Your task to perform on an android device: Open Amazon Image 0: 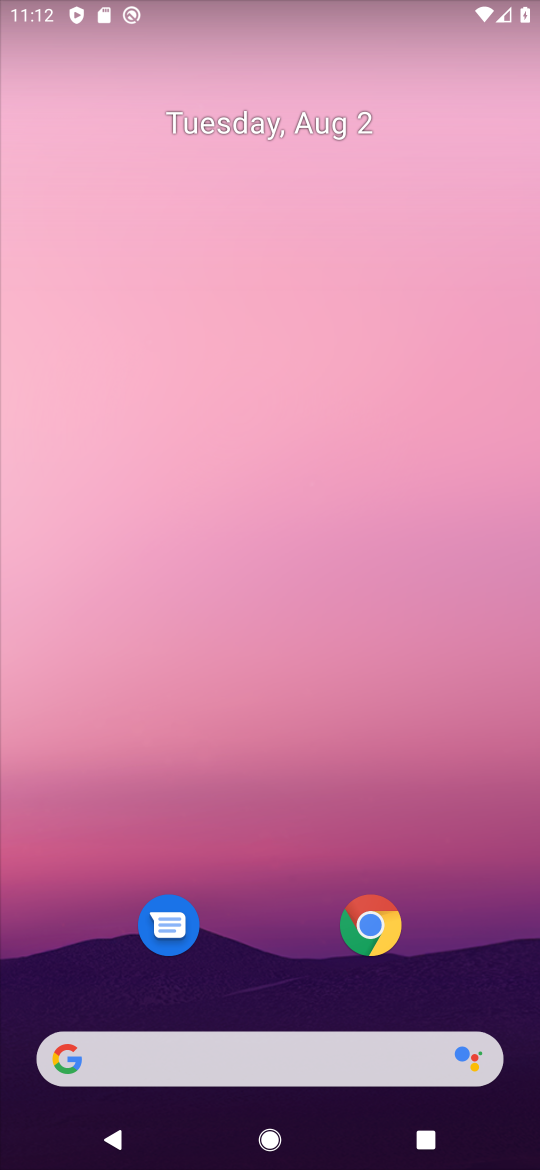
Step 0: press back button
Your task to perform on an android device: Open Amazon Image 1: 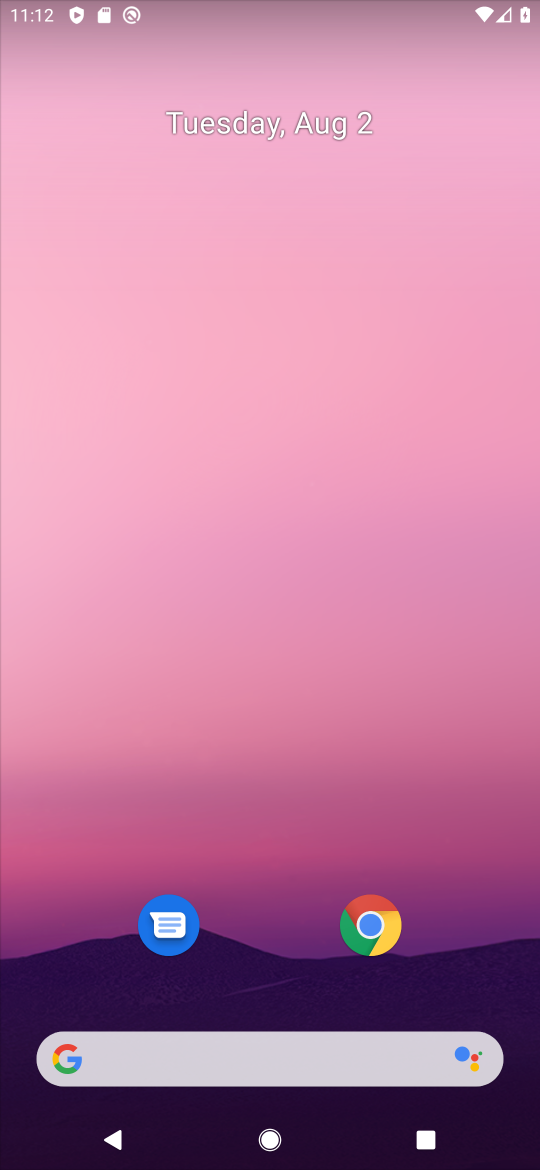
Step 1: click (382, 938)
Your task to perform on an android device: Open Amazon Image 2: 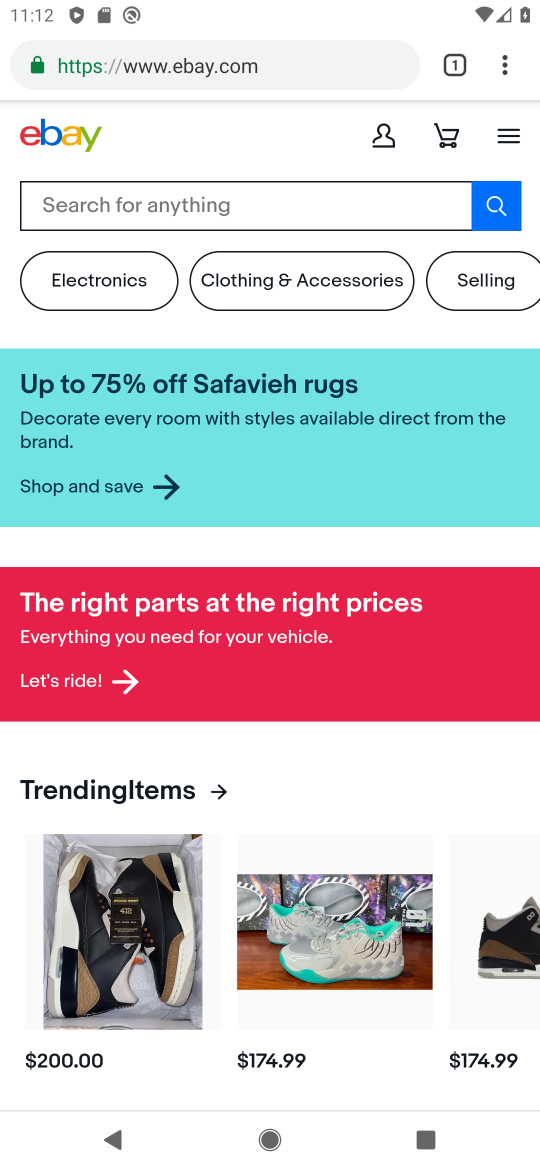
Step 2: click (472, 82)
Your task to perform on an android device: Open Amazon Image 3: 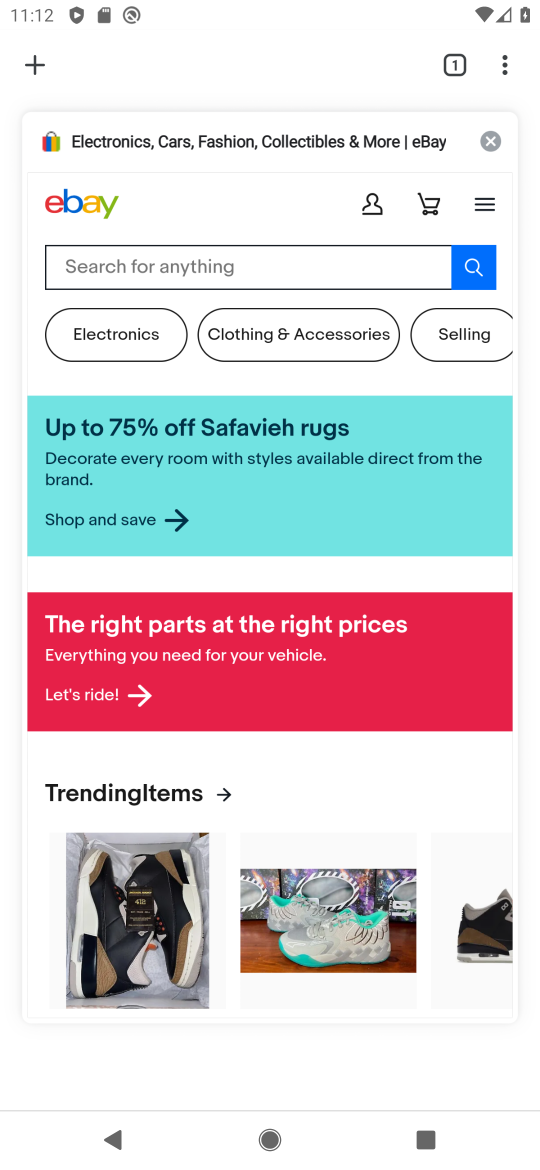
Step 3: click (29, 70)
Your task to perform on an android device: Open Amazon Image 4: 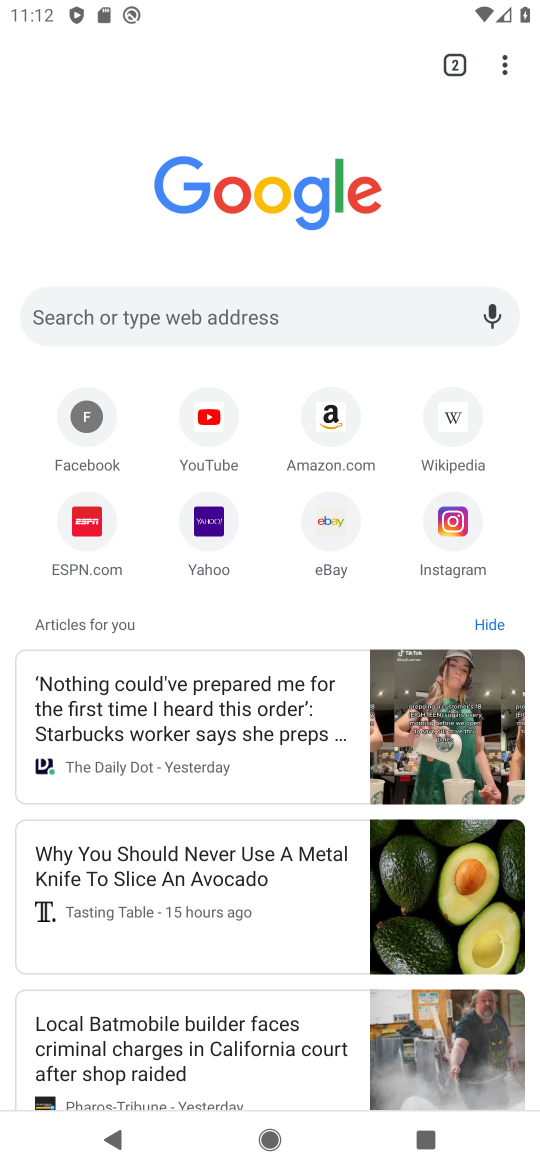
Step 4: click (329, 447)
Your task to perform on an android device: Open Amazon Image 5: 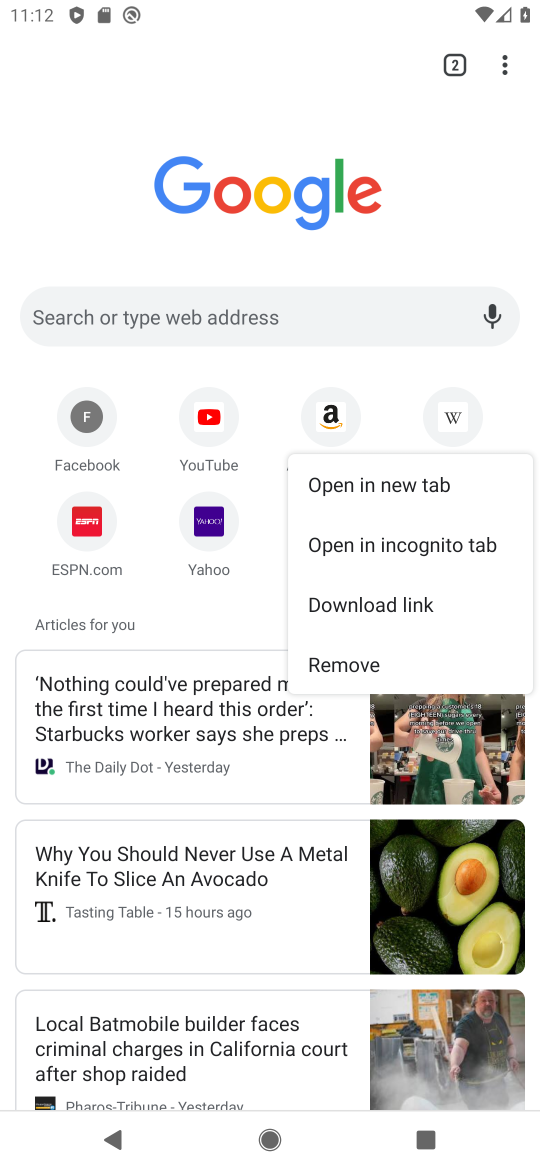
Step 5: click (328, 431)
Your task to perform on an android device: Open Amazon Image 6: 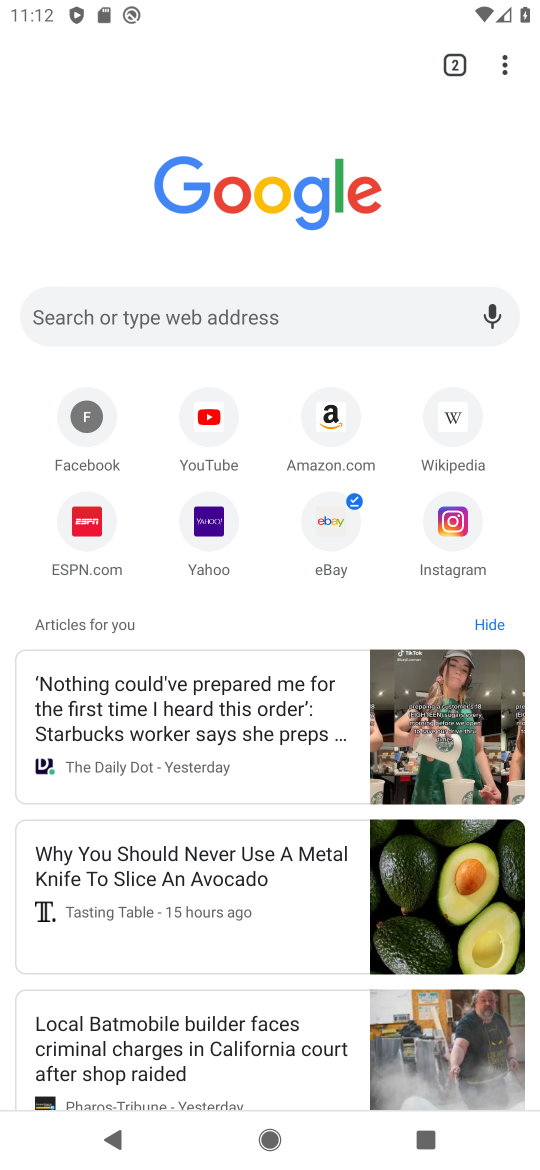
Step 6: click (319, 408)
Your task to perform on an android device: Open Amazon Image 7: 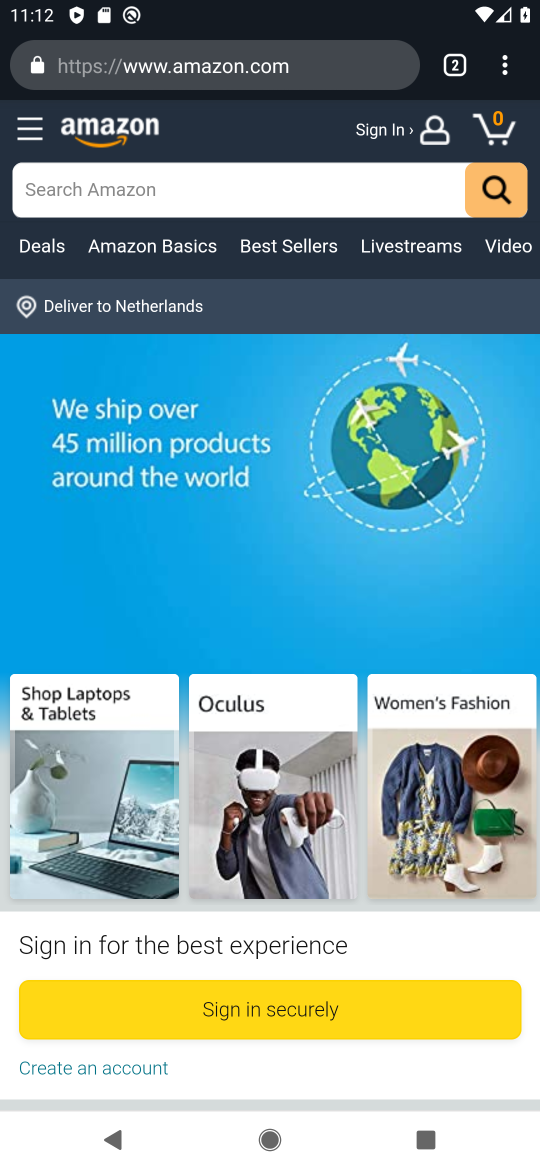
Step 7: task complete